Your task to perform on an android device: Go to Maps Image 0: 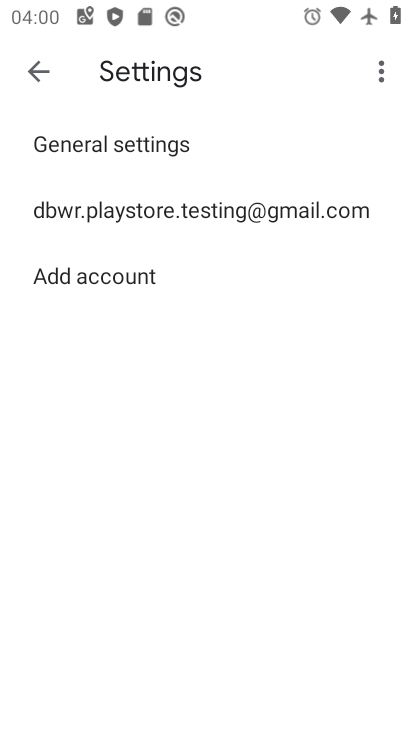
Step 0: press home button
Your task to perform on an android device: Go to Maps Image 1: 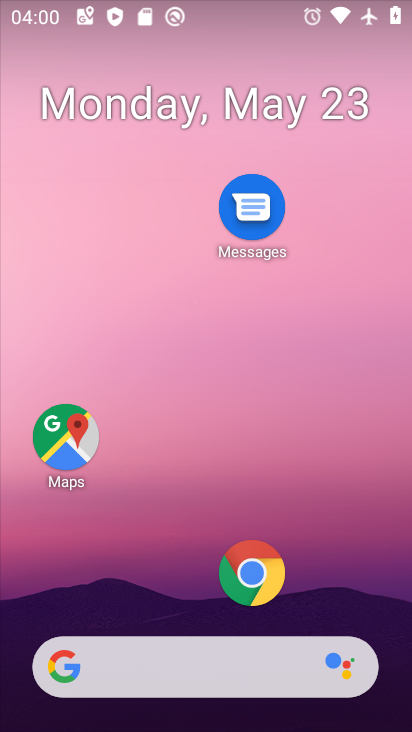
Step 1: drag from (312, 588) to (371, 3)
Your task to perform on an android device: Go to Maps Image 2: 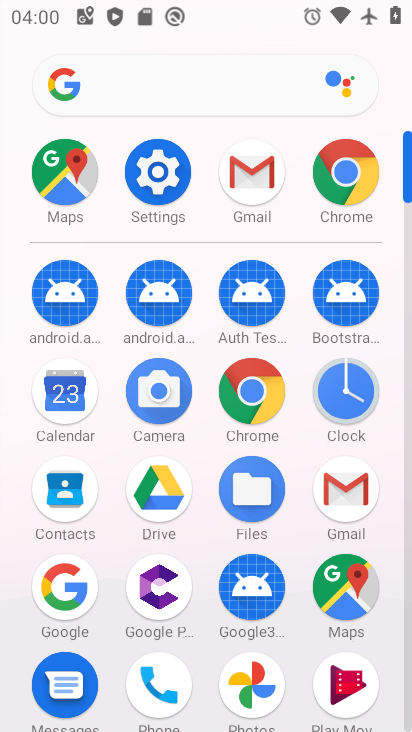
Step 2: click (348, 597)
Your task to perform on an android device: Go to Maps Image 3: 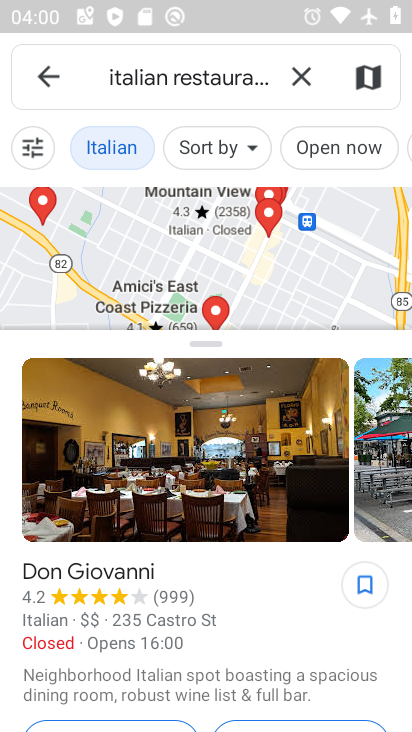
Step 3: task complete